Your task to perform on an android device: toggle pop-ups in chrome Image 0: 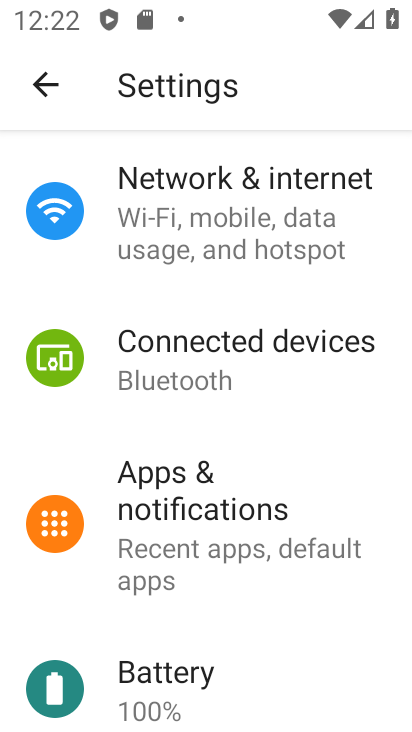
Step 0: press home button
Your task to perform on an android device: toggle pop-ups in chrome Image 1: 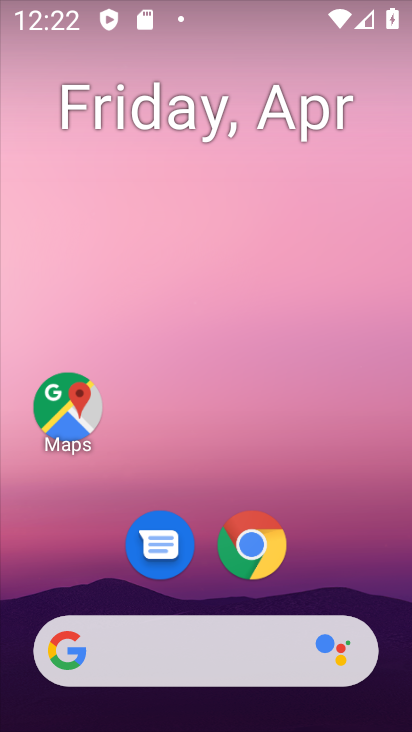
Step 1: click (251, 541)
Your task to perform on an android device: toggle pop-ups in chrome Image 2: 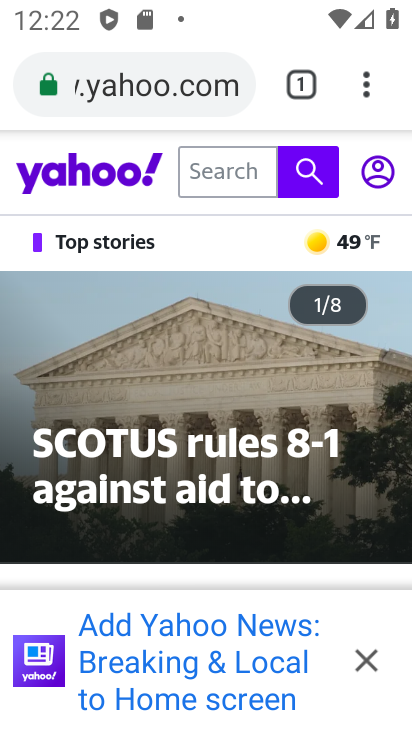
Step 2: click (370, 95)
Your task to perform on an android device: toggle pop-ups in chrome Image 3: 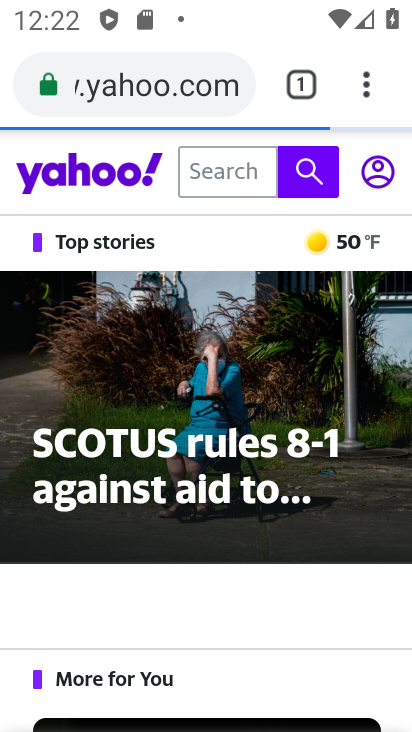
Step 3: click (370, 95)
Your task to perform on an android device: toggle pop-ups in chrome Image 4: 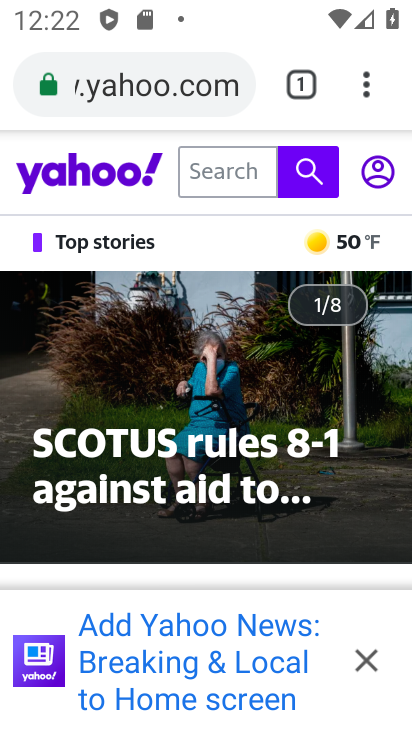
Step 4: click (356, 79)
Your task to perform on an android device: toggle pop-ups in chrome Image 5: 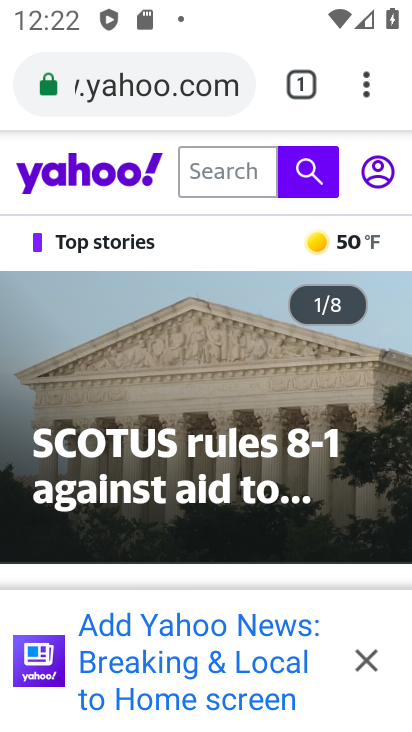
Step 5: click (356, 79)
Your task to perform on an android device: toggle pop-ups in chrome Image 6: 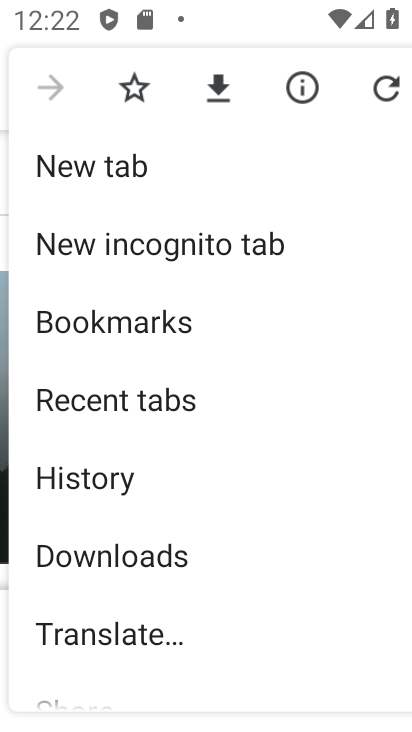
Step 6: drag from (123, 630) to (157, 269)
Your task to perform on an android device: toggle pop-ups in chrome Image 7: 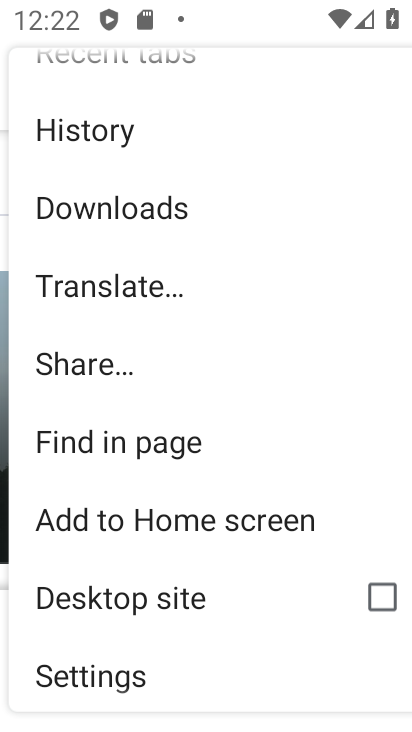
Step 7: click (127, 666)
Your task to perform on an android device: toggle pop-ups in chrome Image 8: 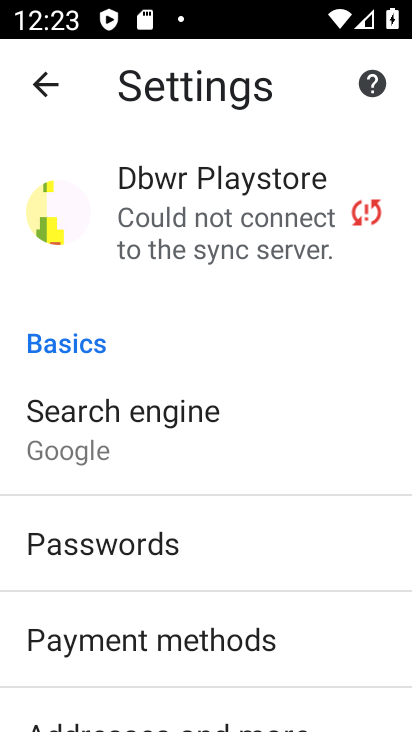
Step 8: drag from (249, 586) to (248, 121)
Your task to perform on an android device: toggle pop-ups in chrome Image 9: 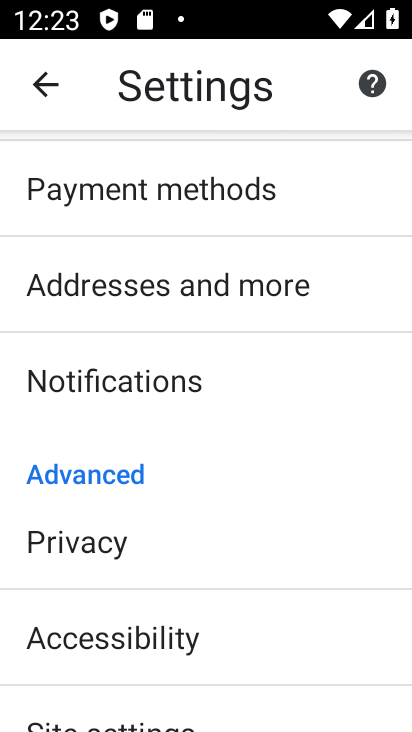
Step 9: drag from (272, 610) to (264, 323)
Your task to perform on an android device: toggle pop-ups in chrome Image 10: 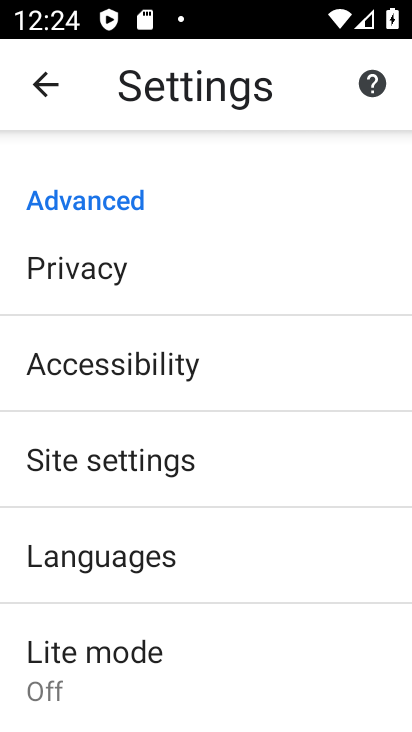
Step 10: click (146, 466)
Your task to perform on an android device: toggle pop-ups in chrome Image 11: 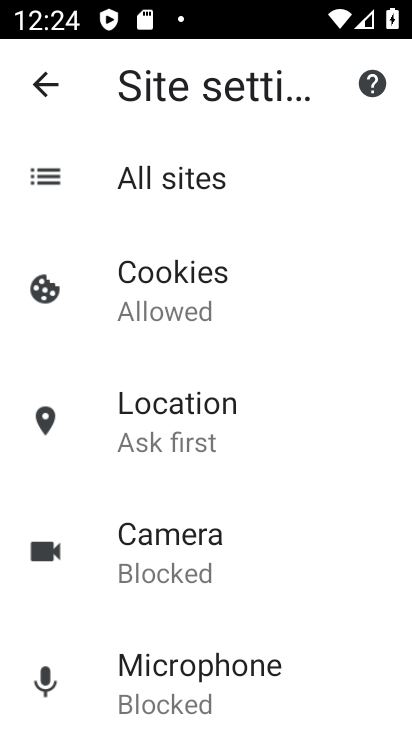
Step 11: drag from (317, 620) to (303, 252)
Your task to perform on an android device: toggle pop-ups in chrome Image 12: 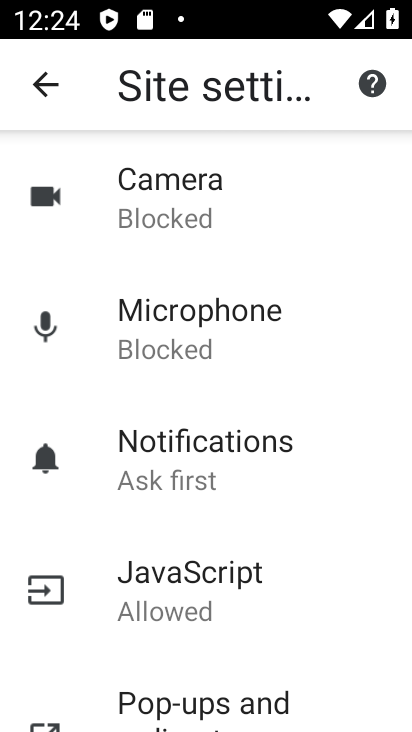
Step 12: click (240, 700)
Your task to perform on an android device: toggle pop-ups in chrome Image 13: 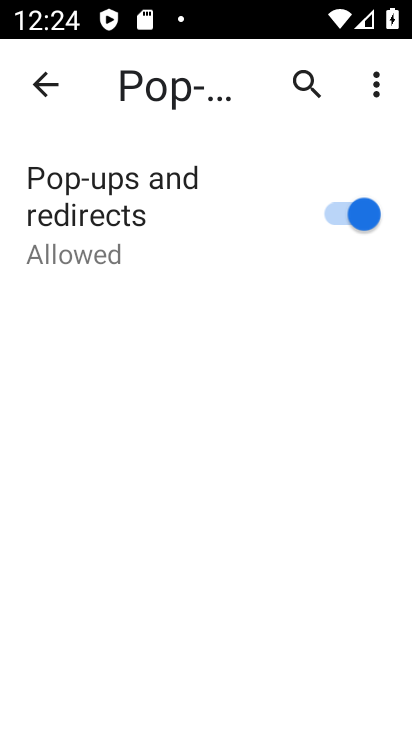
Step 13: click (329, 210)
Your task to perform on an android device: toggle pop-ups in chrome Image 14: 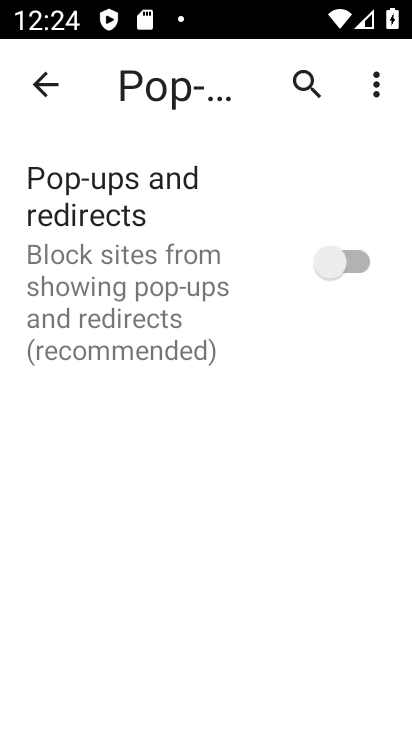
Step 14: task complete